Your task to perform on an android device: View the shopping cart on target. Image 0: 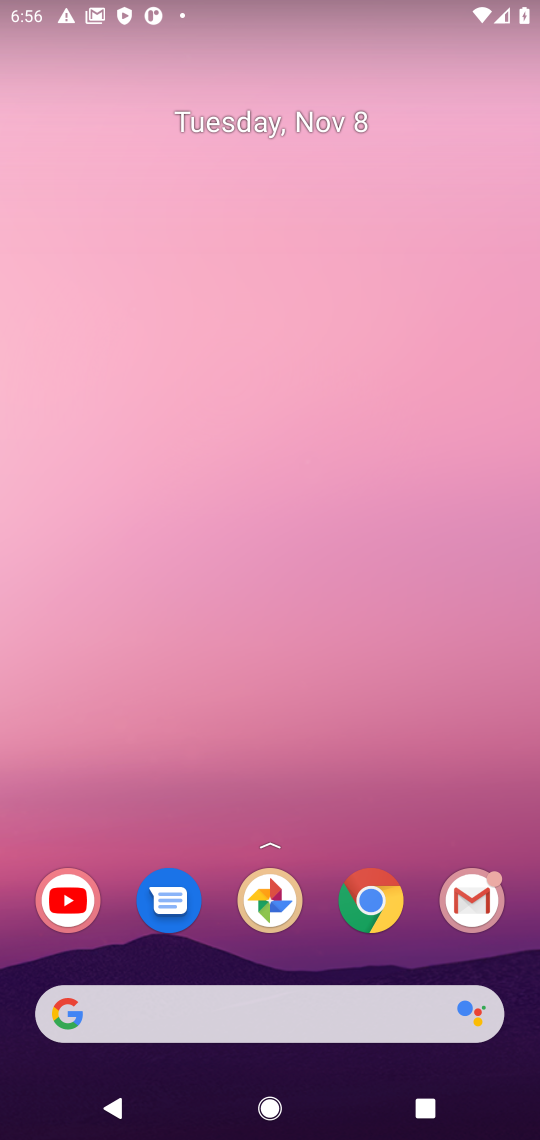
Step 0: click (372, 891)
Your task to perform on an android device: View the shopping cart on target. Image 1: 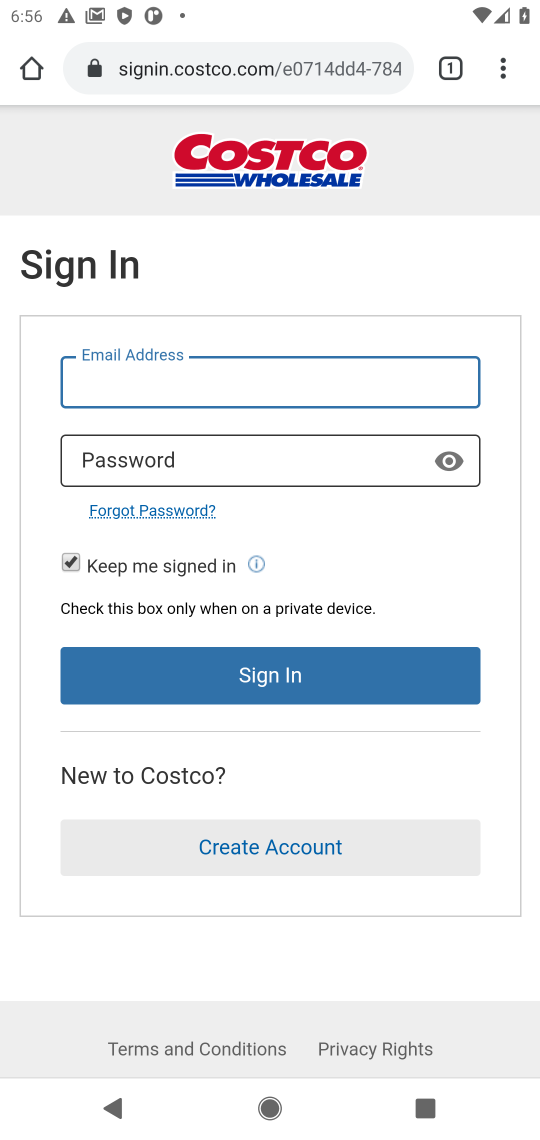
Step 1: click (160, 61)
Your task to perform on an android device: View the shopping cart on target. Image 2: 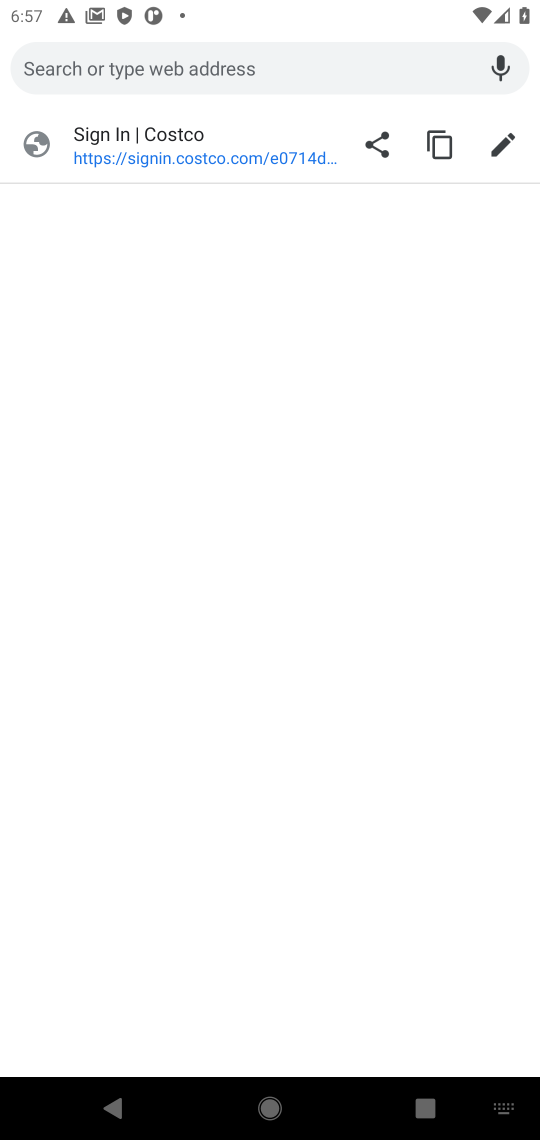
Step 2: type "target"
Your task to perform on an android device: View the shopping cart on target. Image 3: 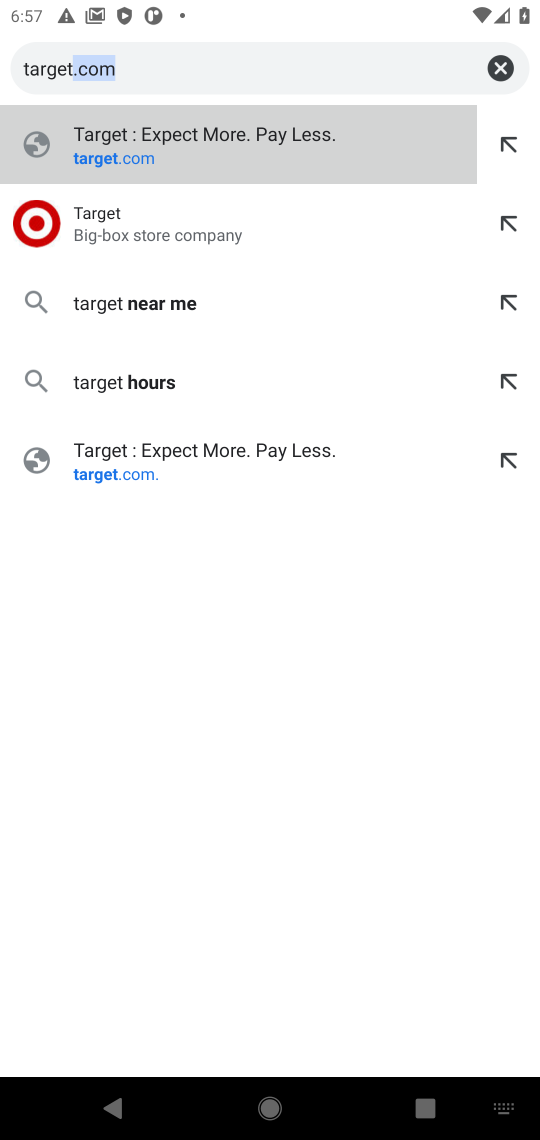
Step 3: click (116, 237)
Your task to perform on an android device: View the shopping cart on target. Image 4: 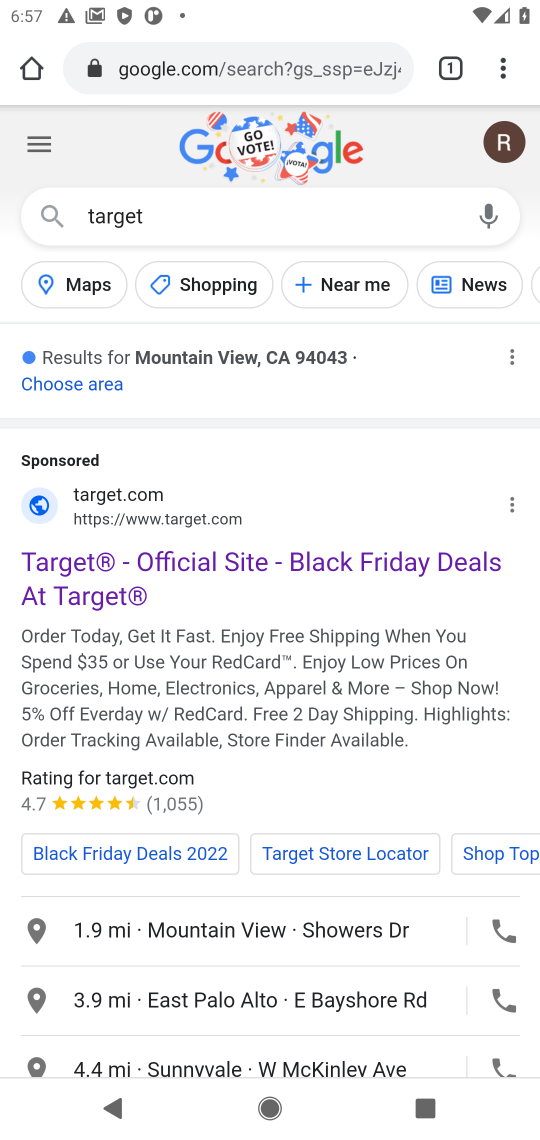
Step 4: drag from (181, 781) to (211, 238)
Your task to perform on an android device: View the shopping cart on target. Image 5: 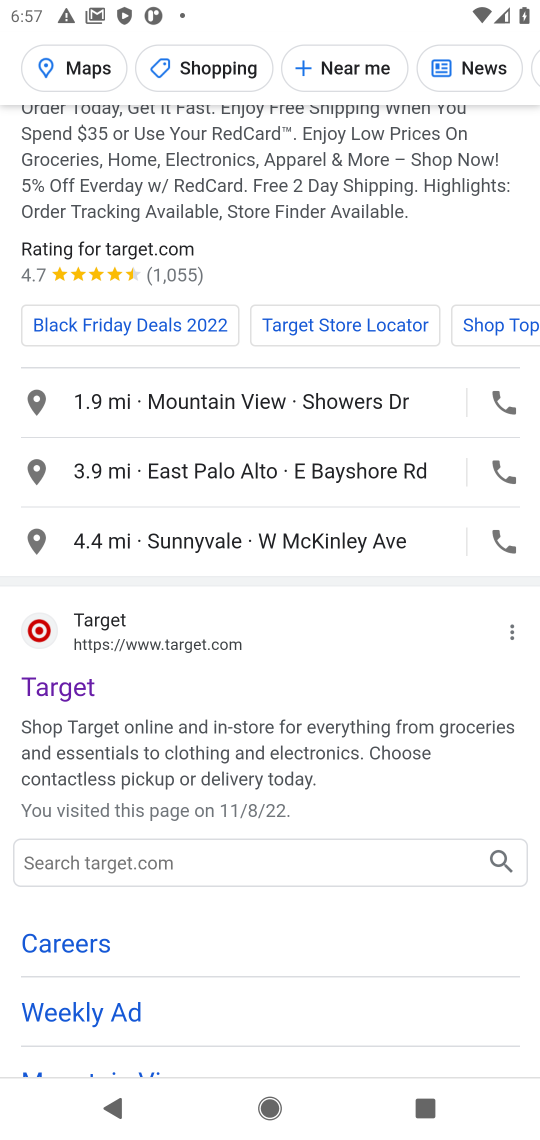
Step 5: click (46, 682)
Your task to perform on an android device: View the shopping cart on target. Image 6: 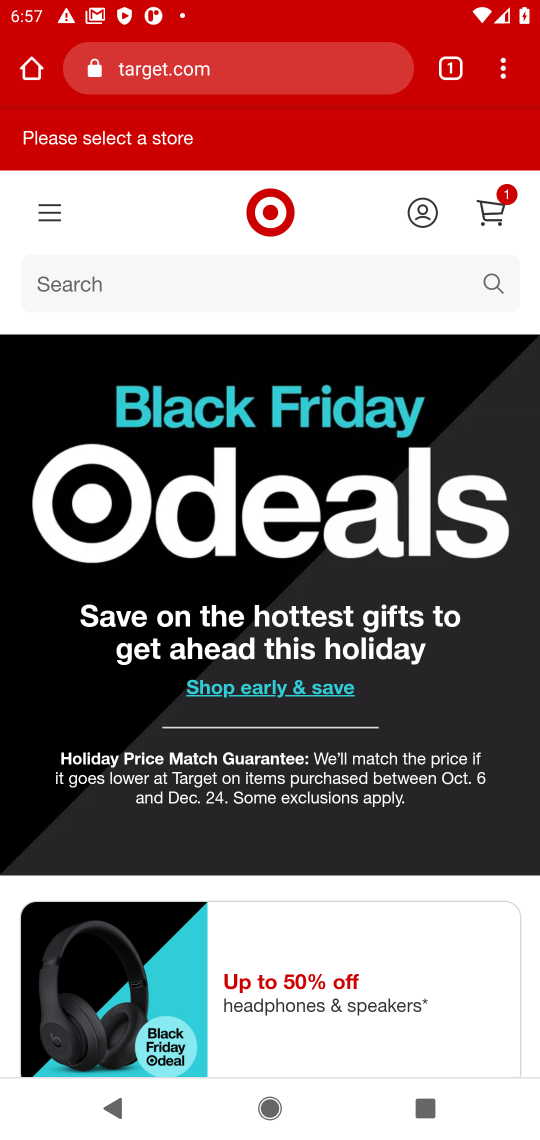
Step 6: click (395, 288)
Your task to perform on an android device: View the shopping cart on target. Image 7: 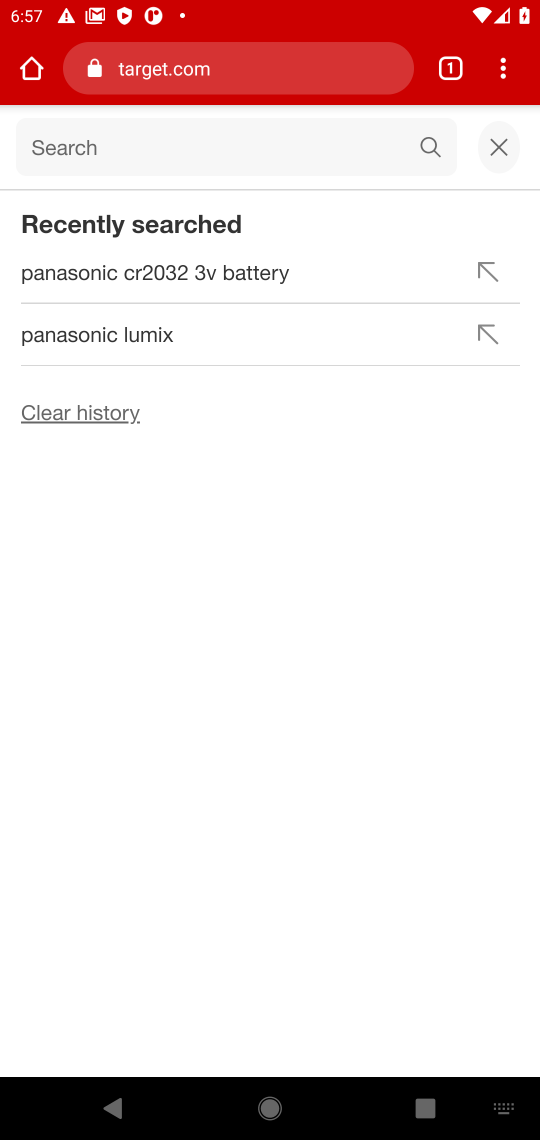
Step 7: press back button
Your task to perform on an android device: View the shopping cart on target. Image 8: 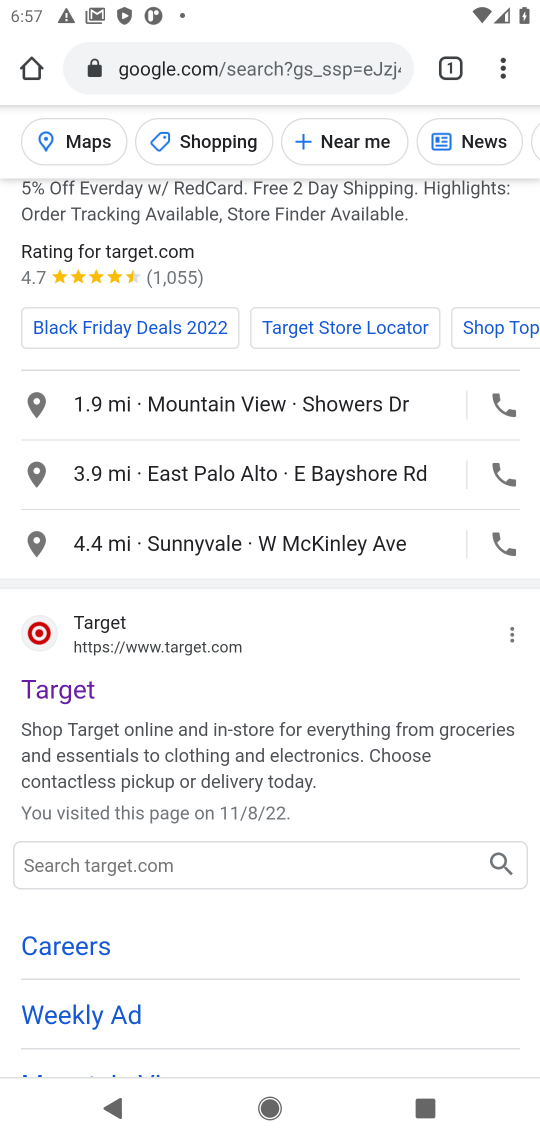
Step 8: click (73, 683)
Your task to perform on an android device: View the shopping cart on target. Image 9: 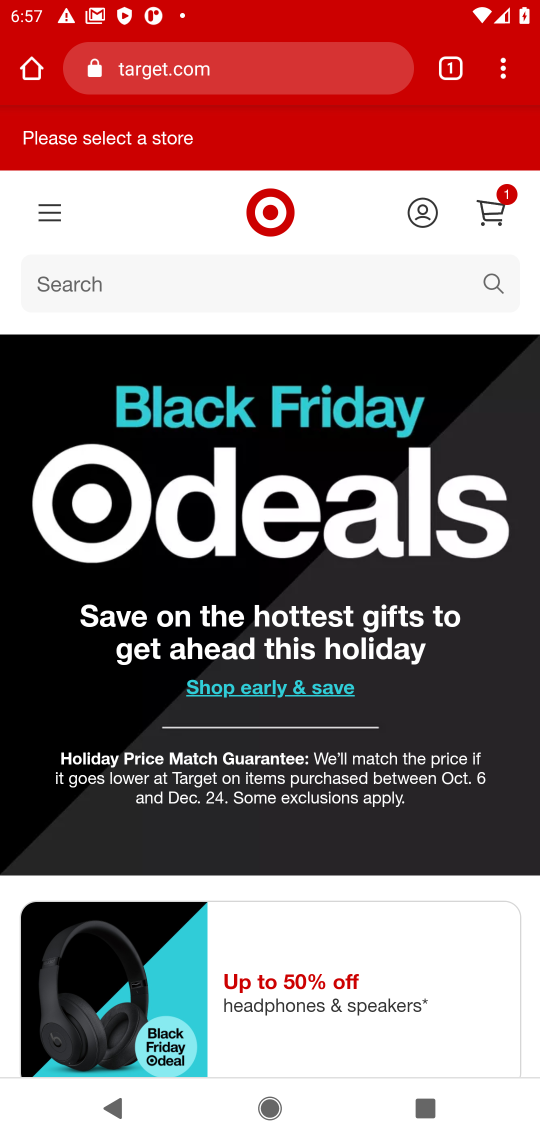
Step 9: click (498, 217)
Your task to perform on an android device: View the shopping cart on target. Image 10: 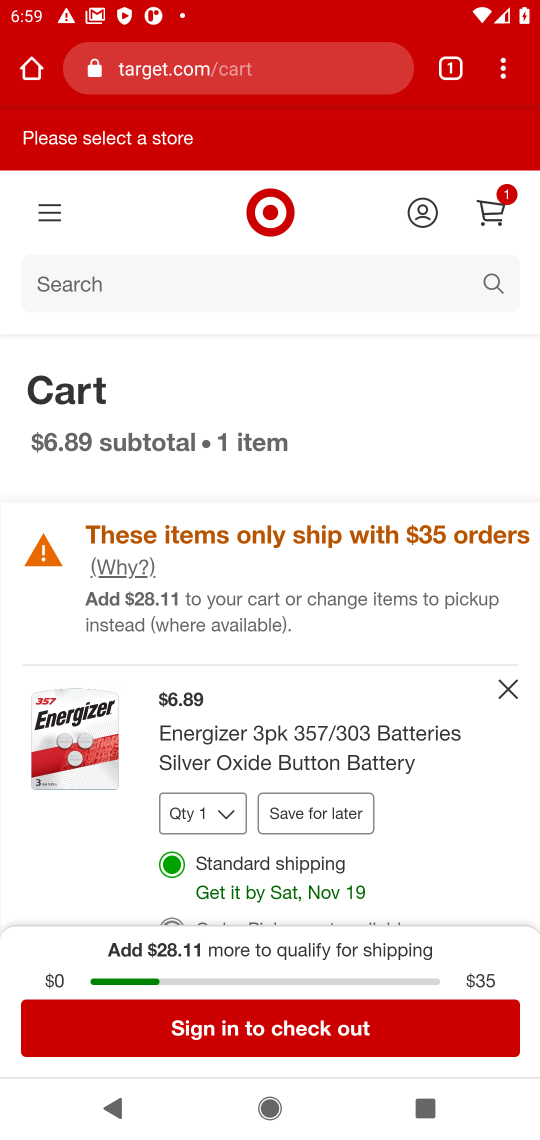
Step 10: click (511, 684)
Your task to perform on an android device: View the shopping cart on target. Image 11: 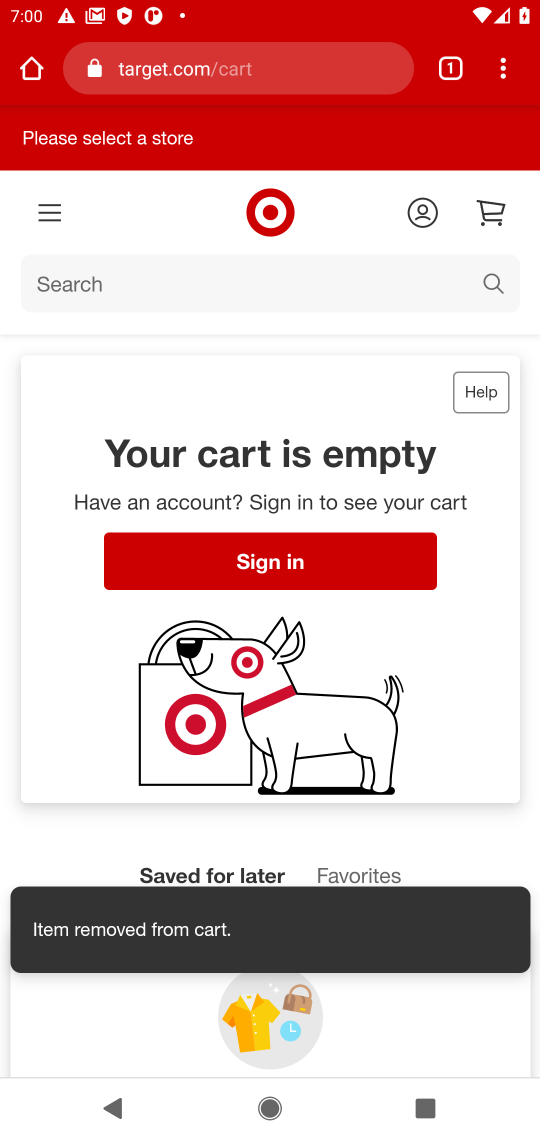
Step 11: task complete